Your task to perform on an android device: Open sound settings Image 0: 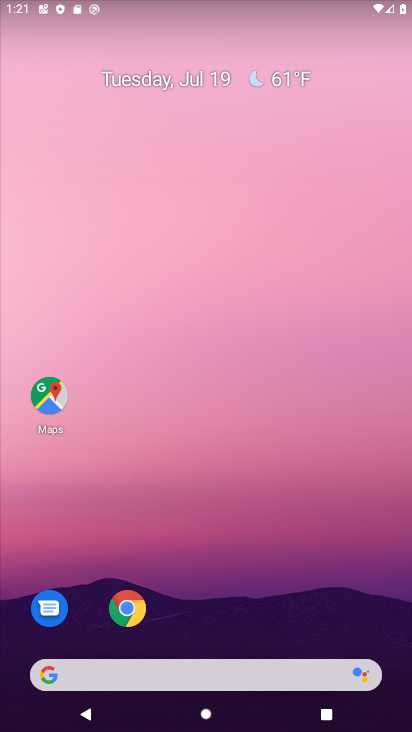
Step 0: drag from (219, 636) to (228, 166)
Your task to perform on an android device: Open sound settings Image 1: 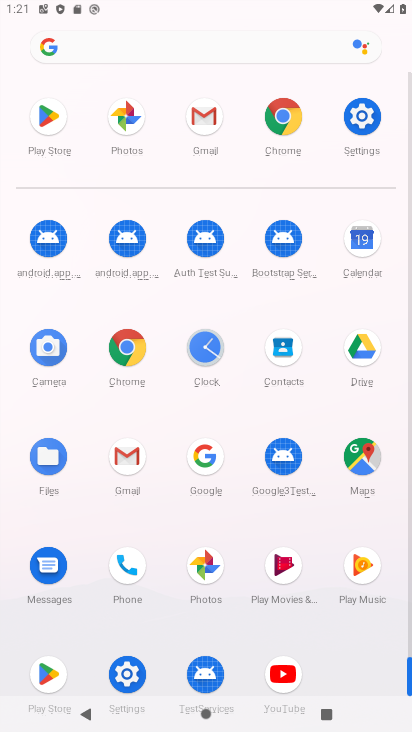
Step 1: click (362, 118)
Your task to perform on an android device: Open sound settings Image 2: 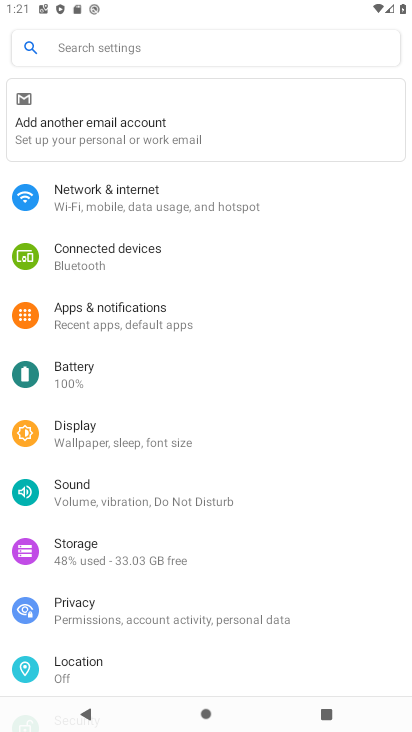
Step 2: click (110, 496)
Your task to perform on an android device: Open sound settings Image 3: 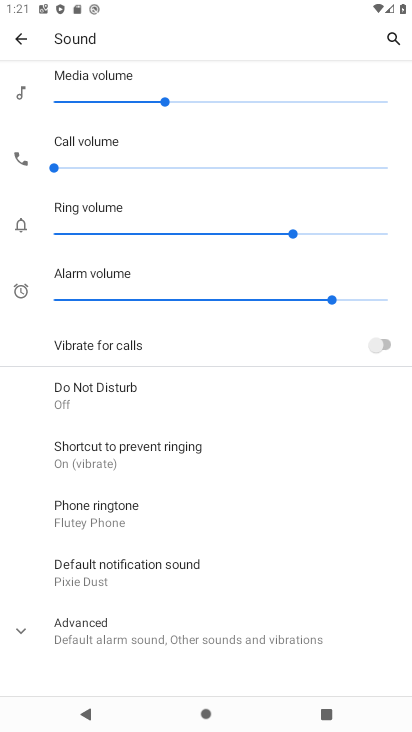
Step 3: task complete